Your task to perform on an android device: Search for Italian restaurants on Maps Image 0: 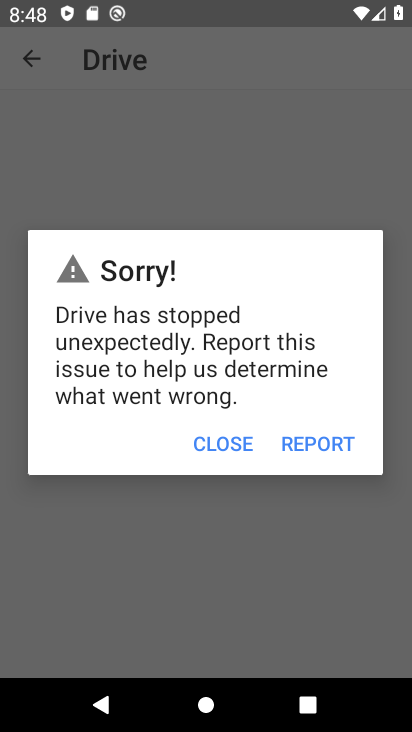
Step 0: press home button
Your task to perform on an android device: Search for Italian restaurants on Maps Image 1: 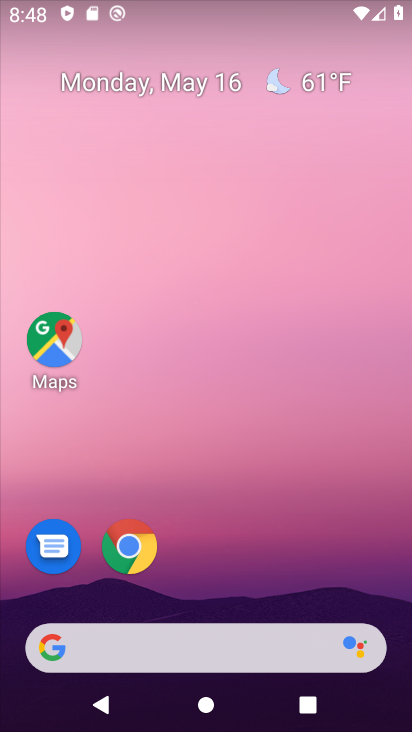
Step 1: click (45, 345)
Your task to perform on an android device: Search for Italian restaurants on Maps Image 2: 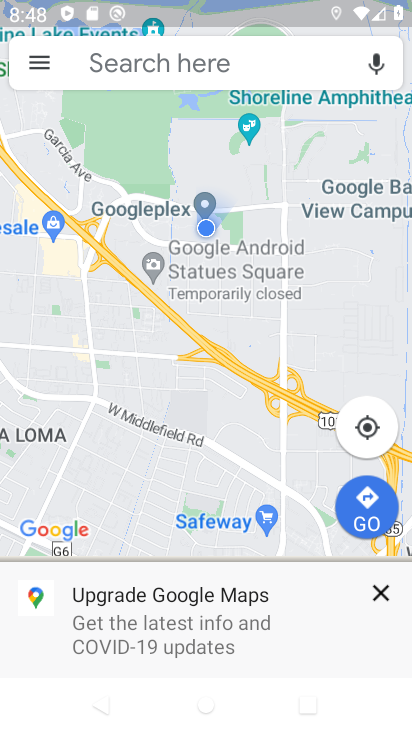
Step 2: click (179, 55)
Your task to perform on an android device: Search for Italian restaurants on Maps Image 3: 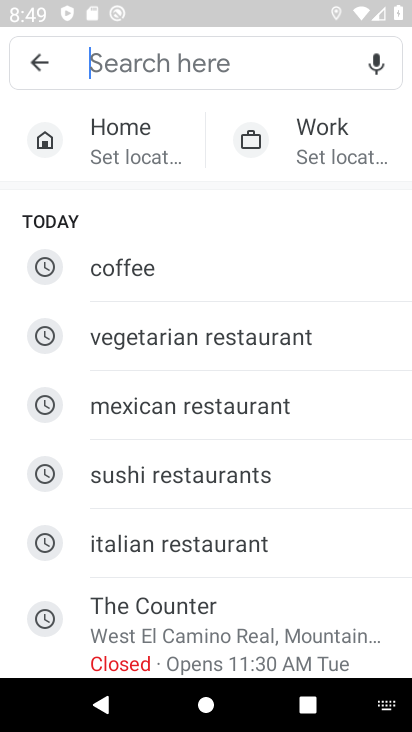
Step 3: click (275, 541)
Your task to perform on an android device: Search for Italian restaurants on Maps Image 4: 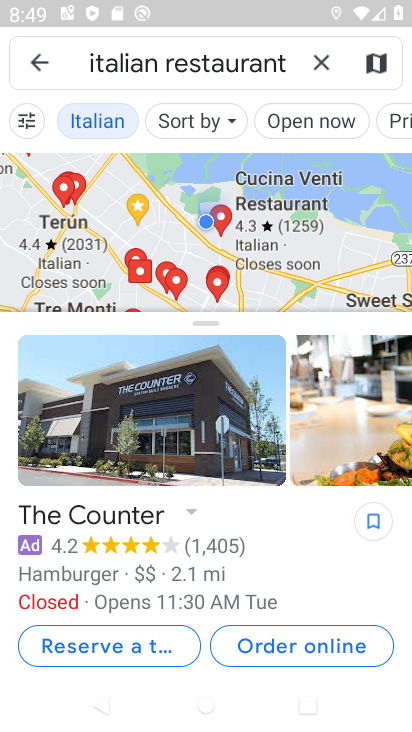
Step 4: task complete